Your task to perform on an android device: turn off sleep mode Image 0: 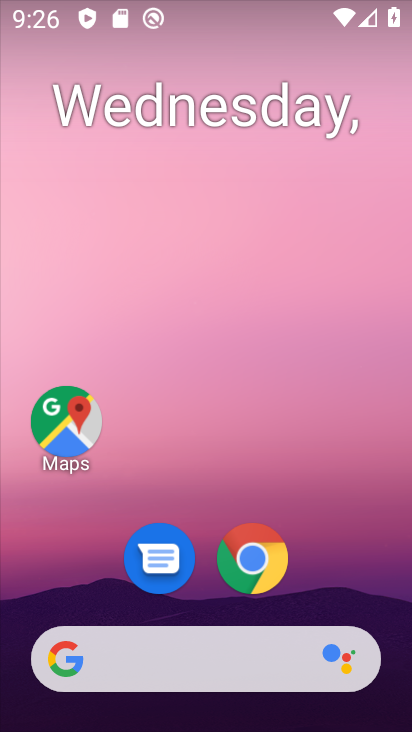
Step 0: drag from (10, 680) to (198, 127)
Your task to perform on an android device: turn off sleep mode Image 1: 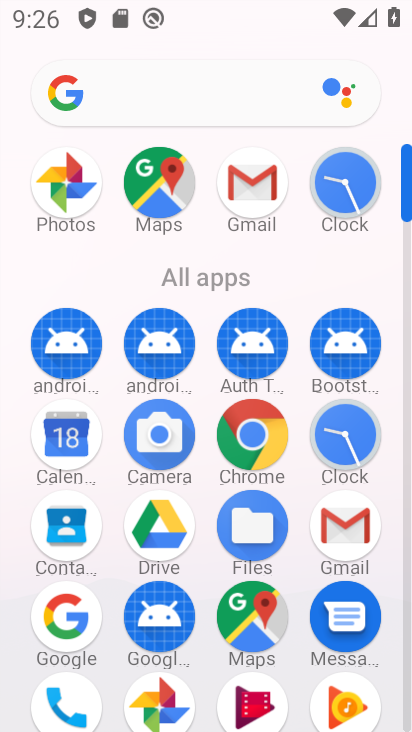
Step 1: drag from (180, 574) to (300, 206)
Your task to perform on an android device: turn off sleep mode Image 2: 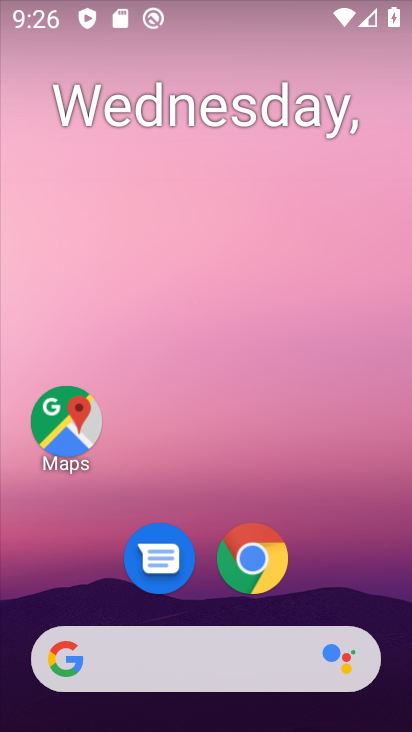
Step 2: press home button
Your task to perform on an android device: turn off sleep mode Image 3: 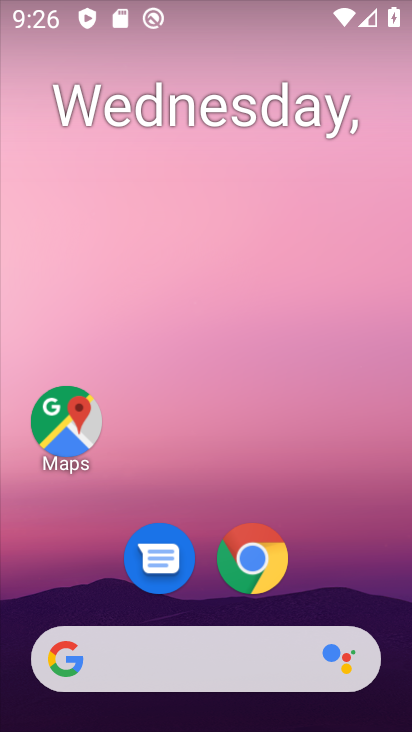
Step 3: drag from (32, 538) to (210, 100)
Your task to perform on an android device: turn off sleep mode Image 4: 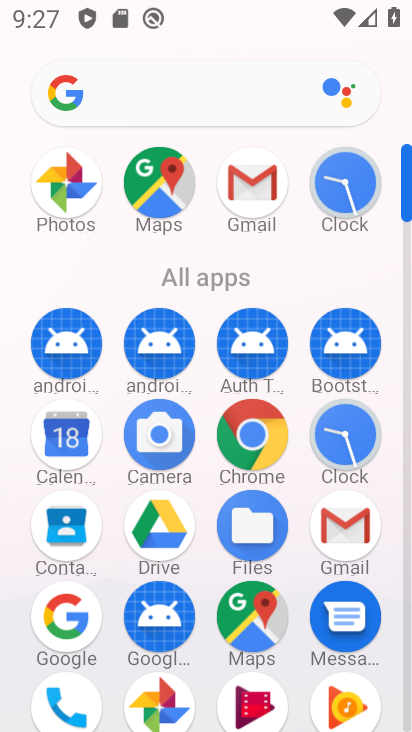
Step 4: drag from (36, 573) to (229, 133)
Your task to perform on an android device: turn off sleep mode Image 5: 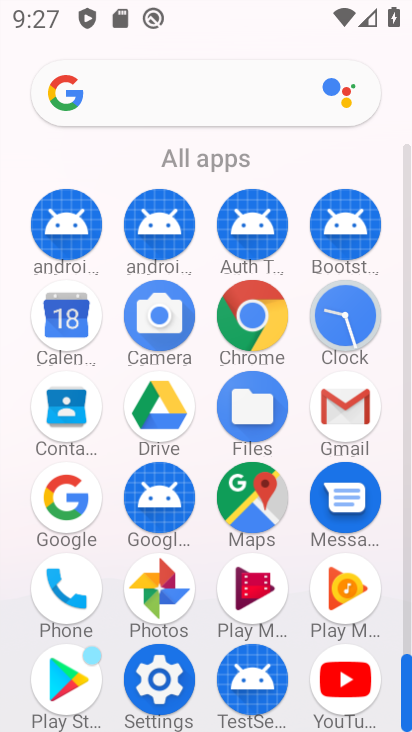
Step 5: click (156, 686)
Your task to perform on an android device: turn off sleep mode Image 6: 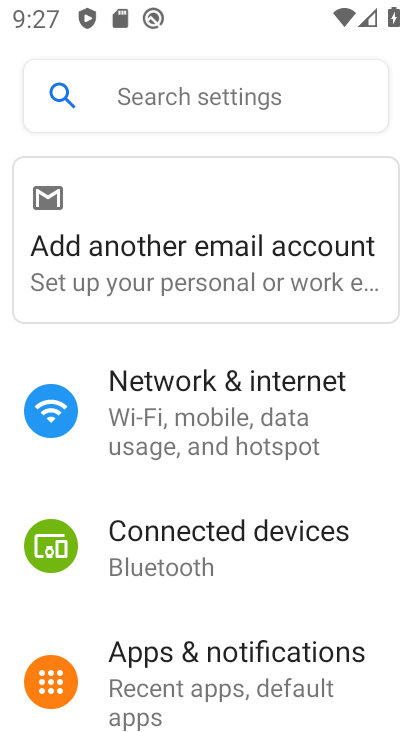
Step 6: drag from (5, 713) to (253, 249)
Your task to perform on an android device: turn off sleep mode Image 7: 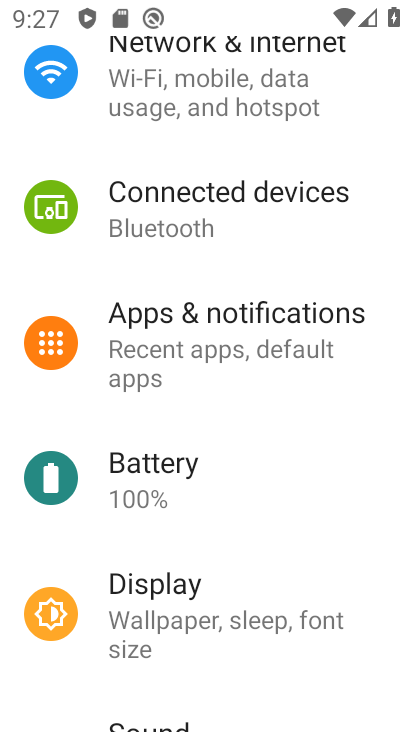
Step 7: click (161, 633)
Your task to perform on an android device: turn off sleep mode Image 8: 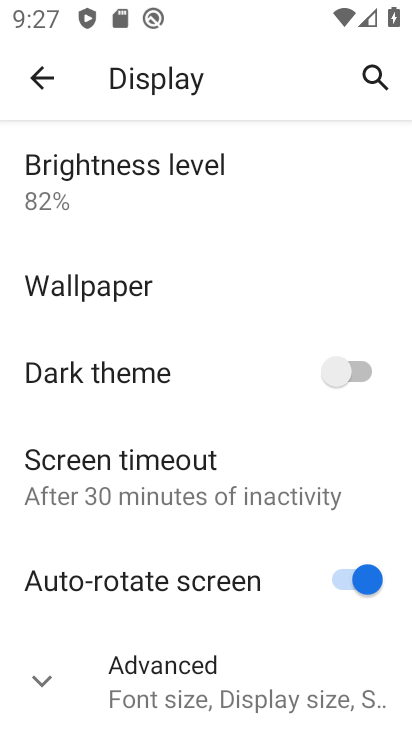
Step 8: task complete